Your task to perform on an android device: Show me the alarms in the clock app Image 0: 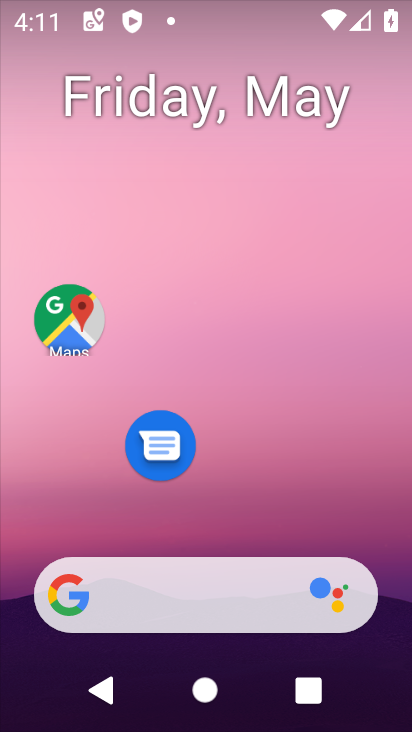
Step 0: drag from (243, 521) to (249, 2)
Your task to perform on an android device: Show me the alarms in the clock app Image 1: 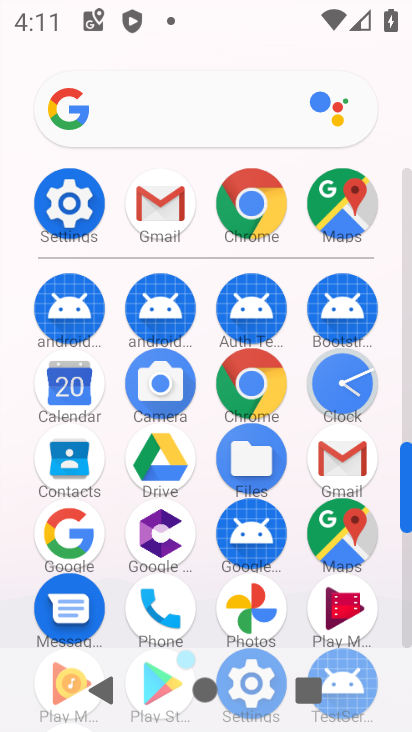
Step 1: click (341, 365)
Your task to perform on an android device: Show me the alarms in the clock app Image 2: 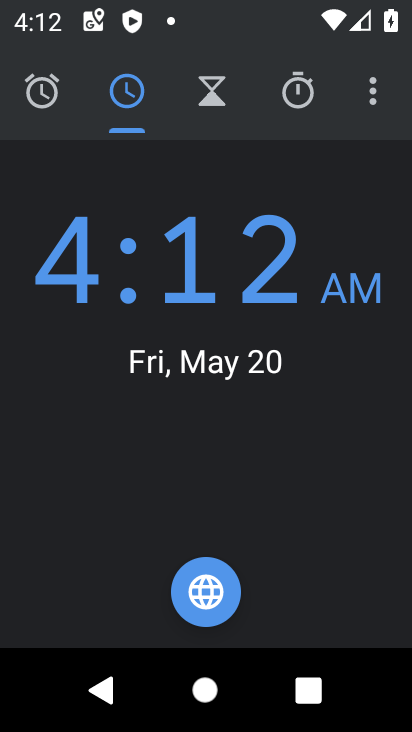
Step 2: click (51, 85)
Your task to perform on an android device: Show me the alarms in the clock app Image 3: 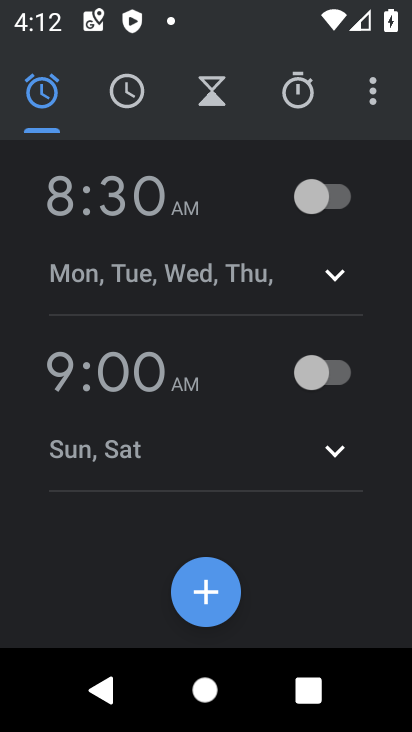
Step 3: task complete